Your task to perform on an android device: Open Maps and search for coffee Image 0: 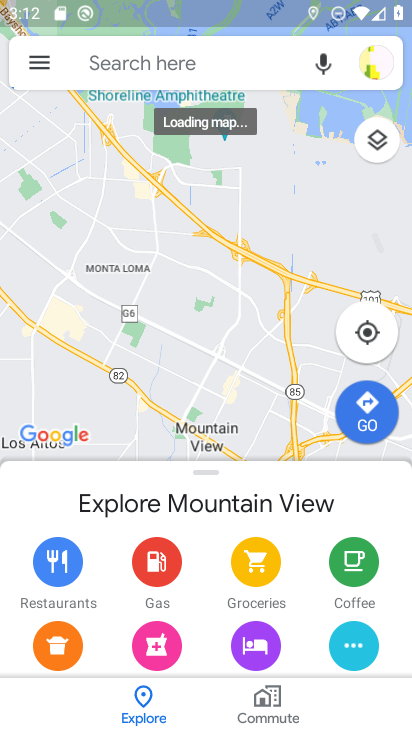
Step 0: click (222, 53)
Your task to perform on an android device: Open Maps and search for coffee Image 1: 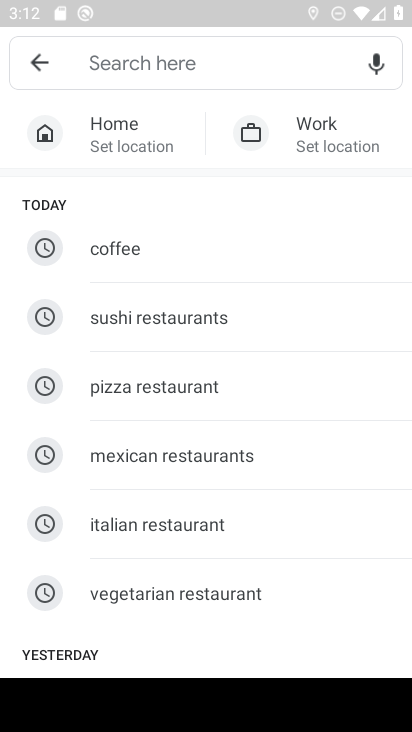
Step 1: click (174, 246)
Your task to perform on an android device: Open Maps and search for coffee Image 2: 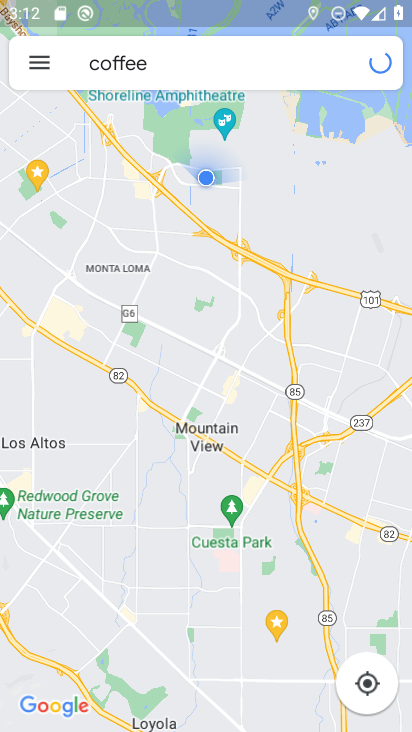
Step 2: task complete